Your task to perform on an android device: delete location history Image 0: 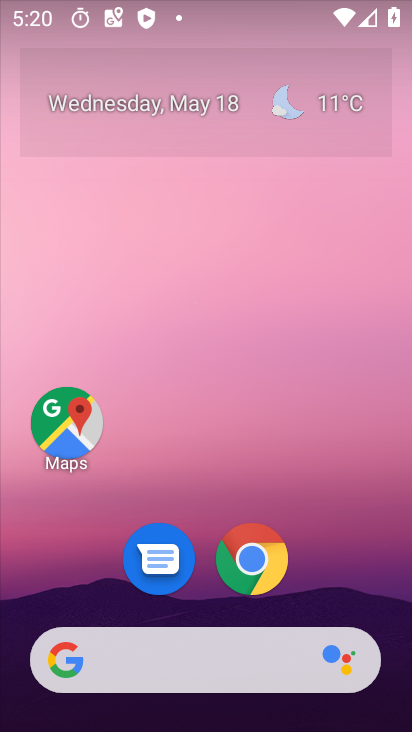
Step 0: click (66, 417)
Your task to perform on an android device: delete location history Image 1: 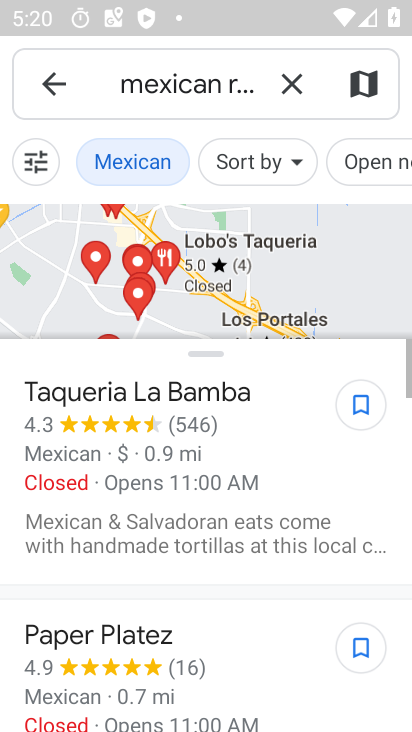
Step 1: click (63, 68)
Your task to perform on an android device: delete location history Image 2: 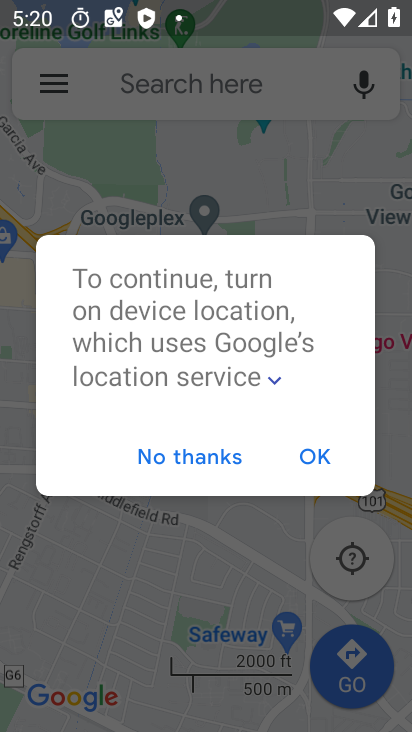
Step 2: click (321, 466)
Your task to perform on an android device: delete location history Image 3: 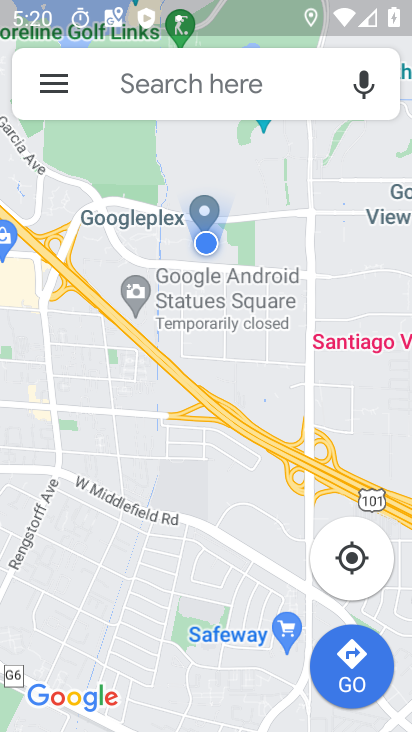
Step 3: click (51, 73)
Your task to perform on an android device: delete location history Image 4: 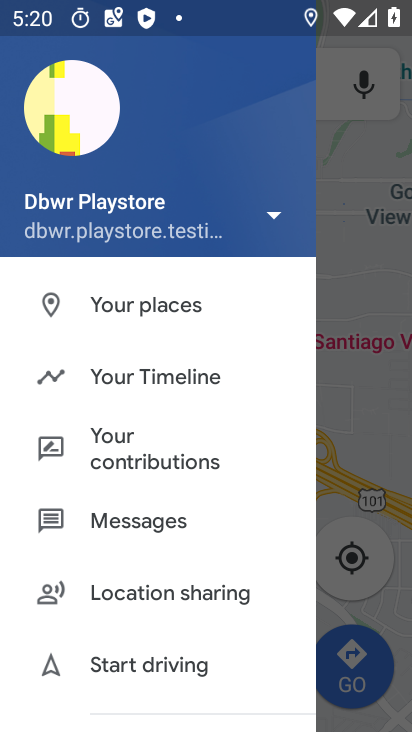
Step 4: click (162, 378)
Your task to perform on an android device: delete location history Image 5: 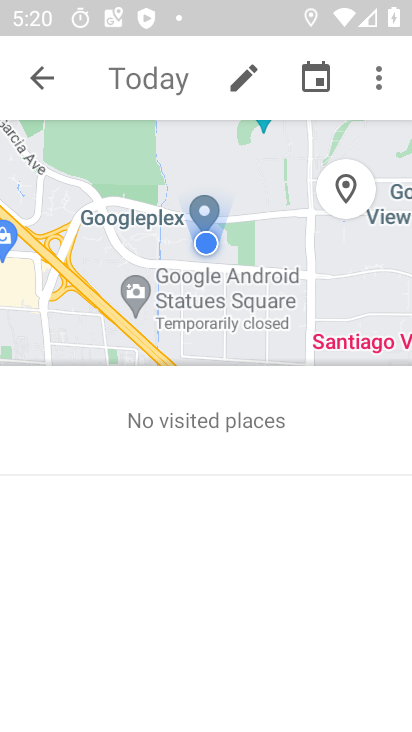
Step 5: click (378, 76)
Your task to perform on an android device: delete location history Image 6: 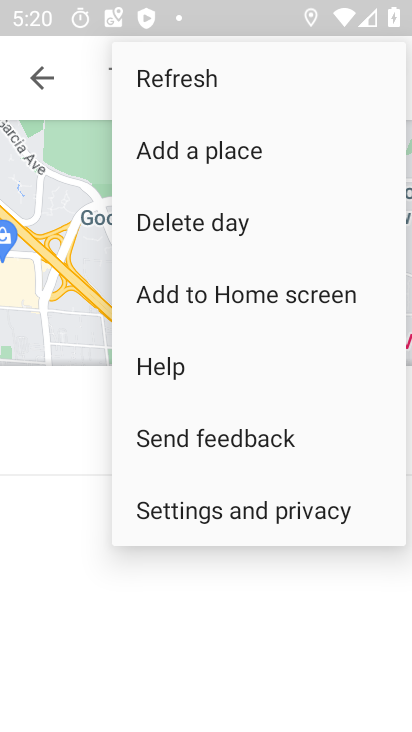
Step 6: click (214, 518)
Your task to perform on an android device: delete location history Image 7: 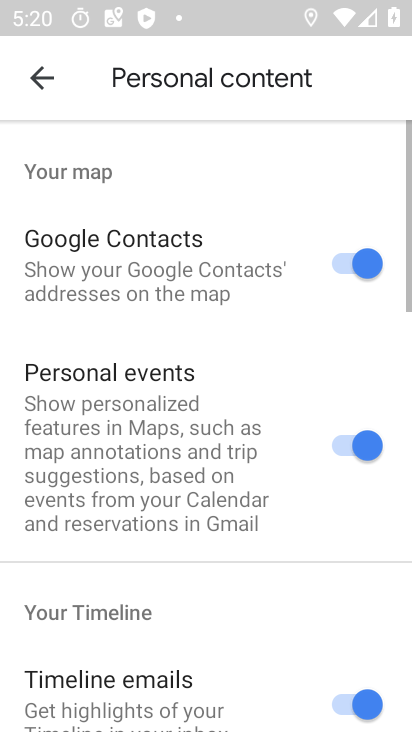
Step 7: drag from (175, 620) to (230, 98)
Your task to perform on an android device: delete location history Image 8: 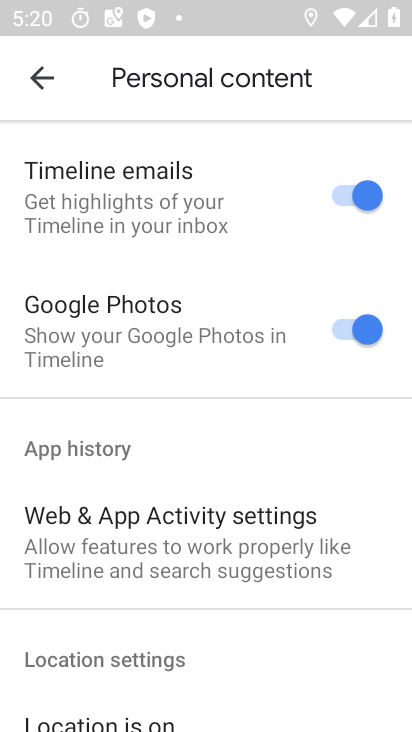
Step 8: drag from (158, 644) to (240, 116)
Your task to perform on an android device: delete location history Image 9: 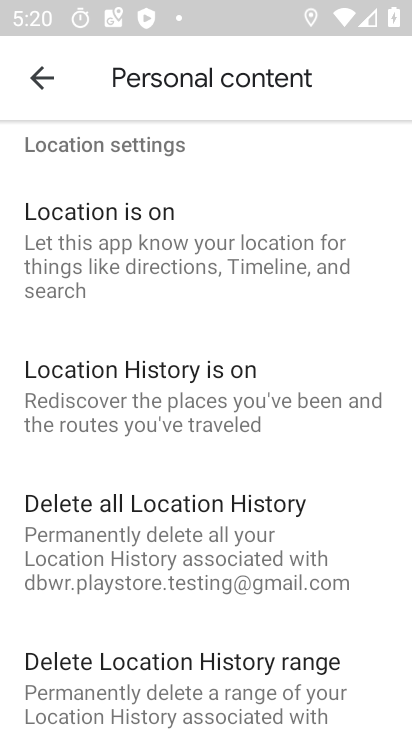
Step 9: click (192, 546)
Your task to perform on an android device: delete location history Image 10: 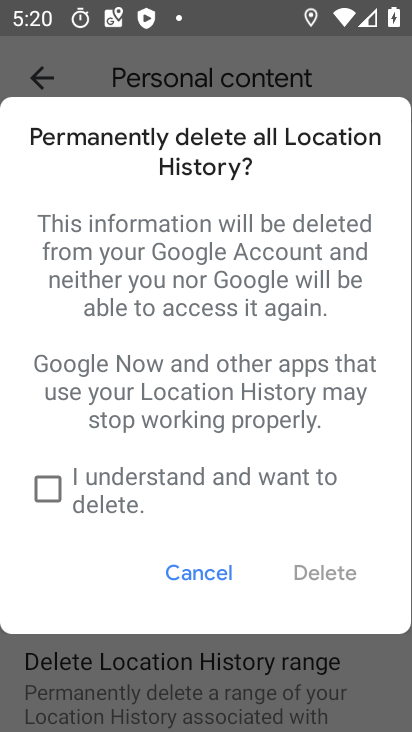
Step 10: click (48, 484)
Your task to perform on an android device: delete location history Image 11: 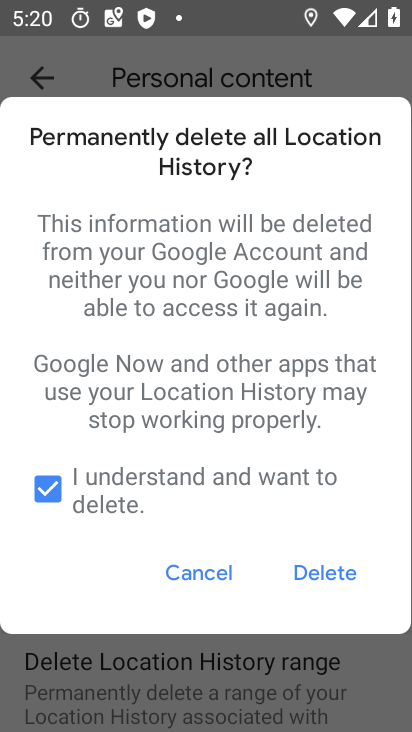
Step 11: click (315, 562)
Your task to perform on an android device: delete location history Image 12: 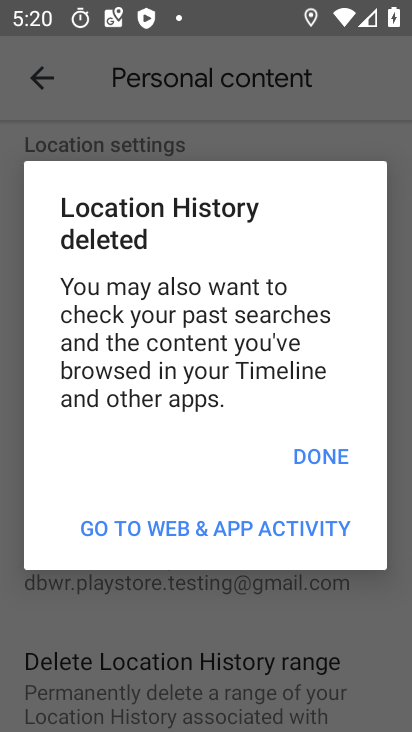
Step 12: click (332, 469)
Your task to perform on an android device: delete location history Image 13: 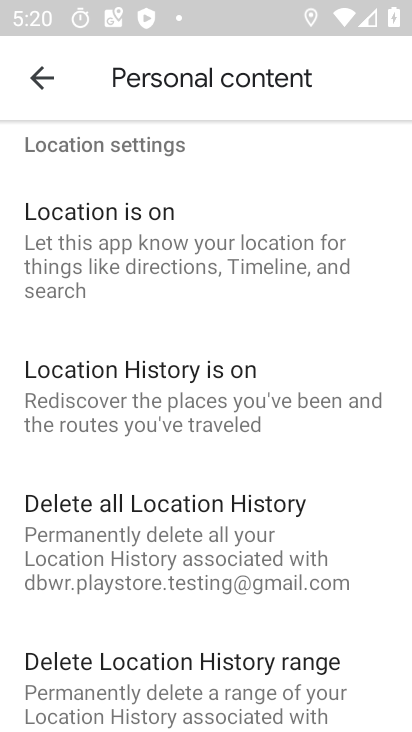
Step 13: task complete